Your task to perform on an android device: change alarm snooze length Image 0: 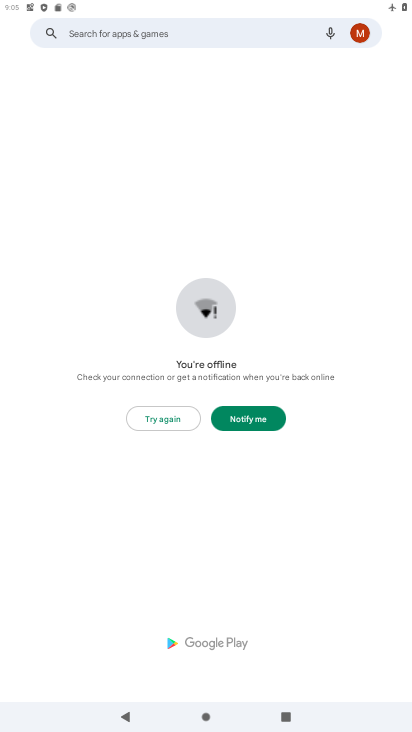
Step 0: press home button
Your task to perform on an android device: change alarm snooze length Image 1: 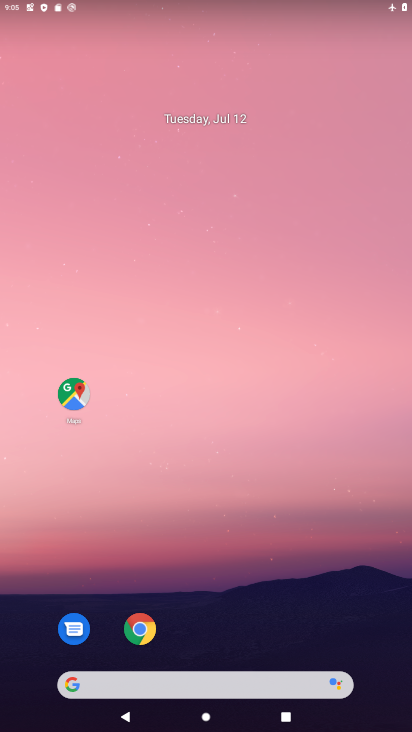
Step 1: drag from (235, 616) to (246, 174)
Your task to perform on an android device: change alarm snooze length Image 2: 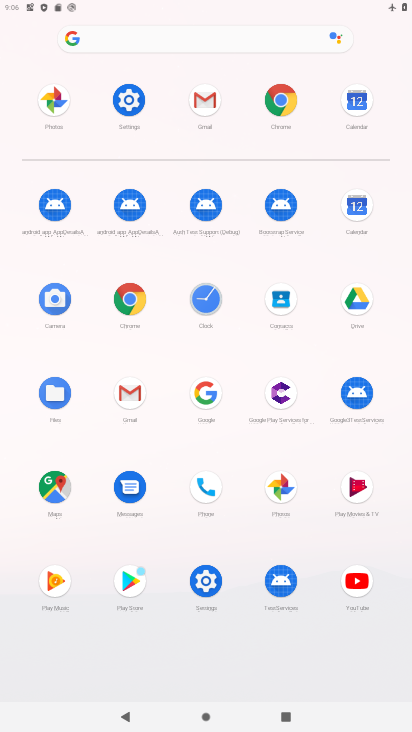
Step 2: click (197, 292)
Your task to perform on an android device: change alarm snooze length Image 3: 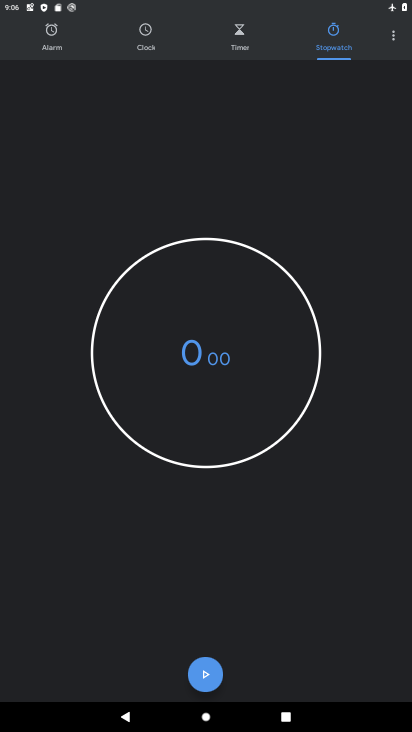
Step 3: click (395, 35)
Your task to perform on an android device: change alarm snooze length Image 4: 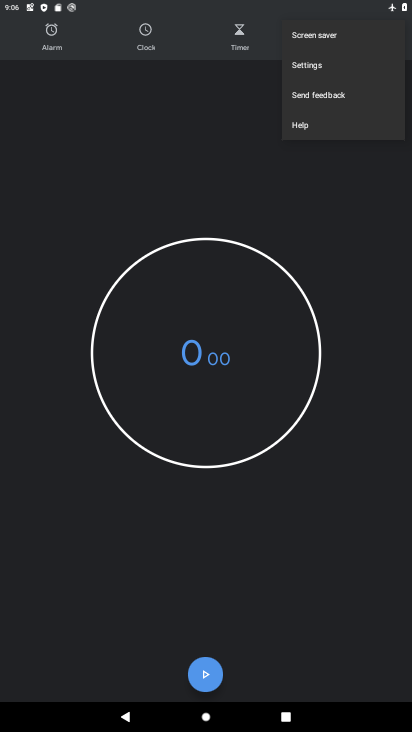
Step 4: click (316, 54)
Your task to perform on an android device: change alarm snooze length Image 5: 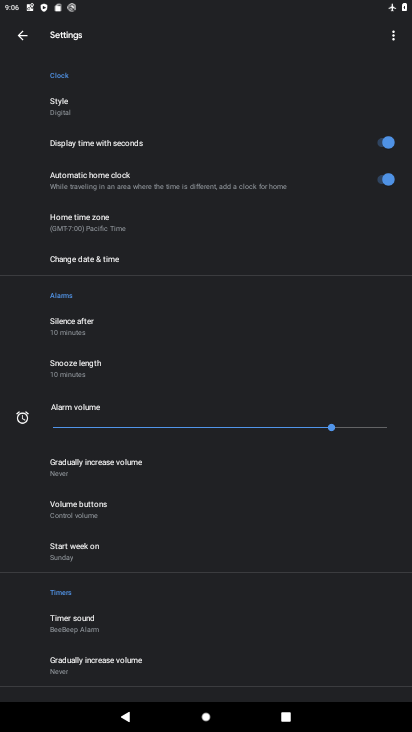
Step 5: click (108, 373)
Your task to perform on an android device: change alarm snooze length Image 6: 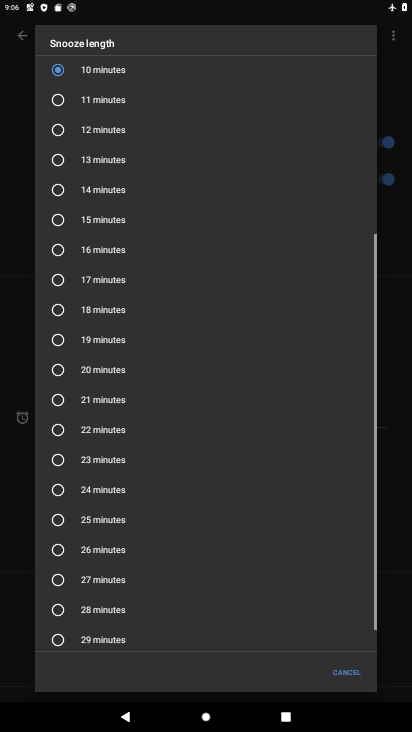
Step 6: click (91, 400)
Your task to perform on an android device: change alarm snooze length Image 7: 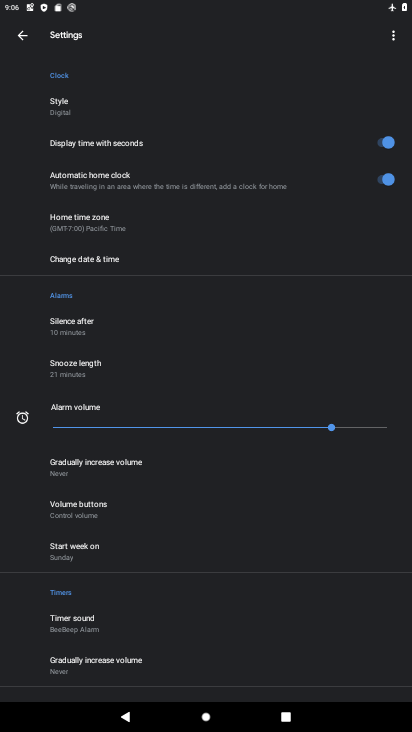
Step 7: task complete